Your task to perform on an android device: open app "Adobe Acrobat Reader: Edit PDF" (install if not already installed) and go to login screen Image 0: 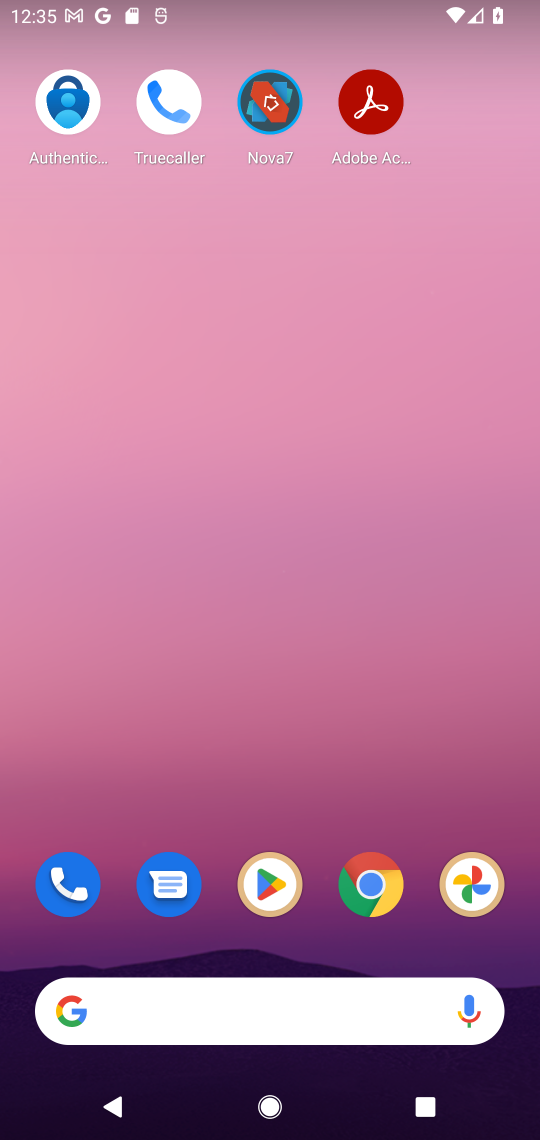
Step 0: drag from (169, 1005) to (348, 181)
Your task to perform on an android device: open app "Adobe Acrobat Reader: Edit PDF" (install if not already installed) and go to login screen Image 1: 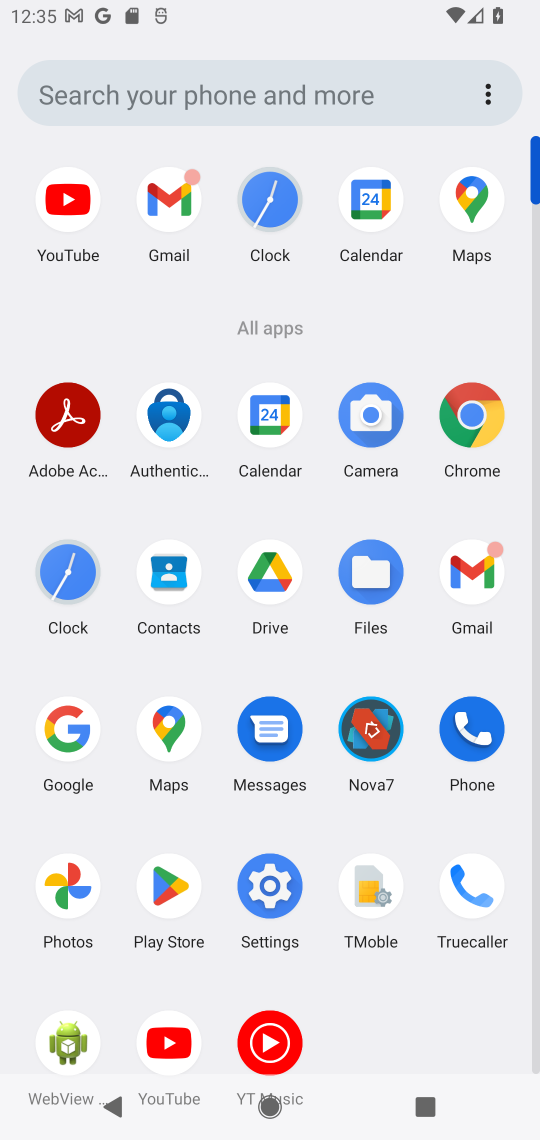
Step 1: click (172, 885)
Your task to perform on an android device: open app "Adobe Acrobat Reader: Edit PDF" (install if not already installed) and go to login screen Image 2: 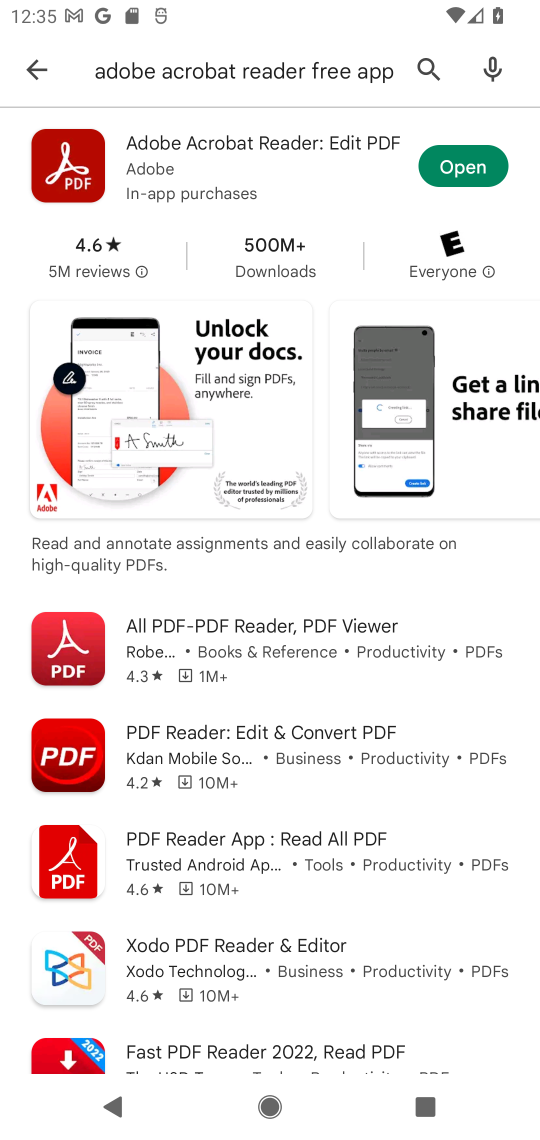
Step 2: press back button
Your task to perform on an android device: open app "Adobe Acrobat Reader: Edit PDF" (install if not already installed) and go to login screen Image 3: 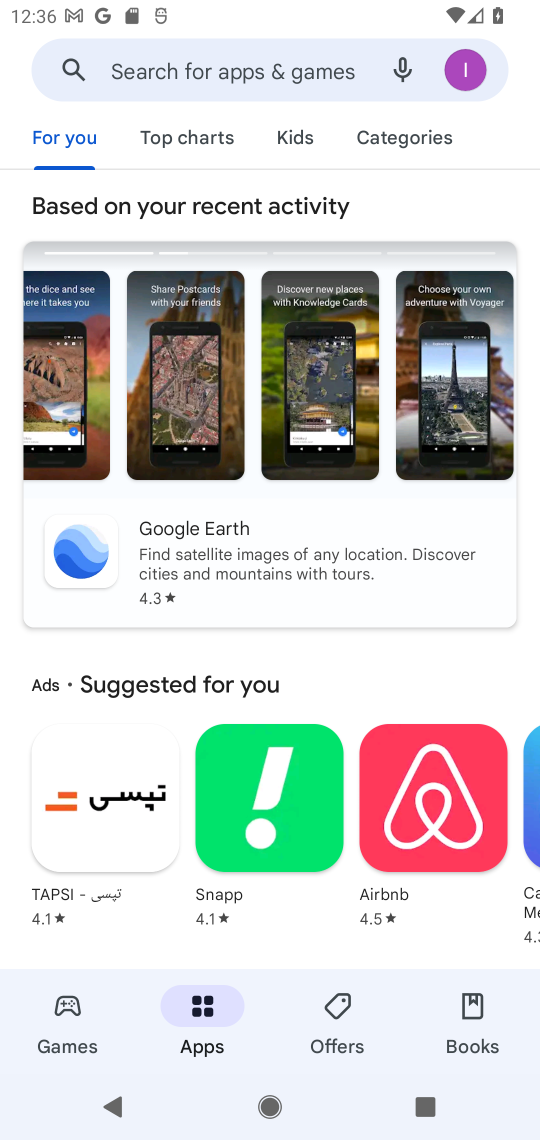
Step 3: click (283, 67)
Your task to perform on an android device: open app "Adobe Acrobat Reader: Edit PDF" (install if not already installed) and go to login screen Image 4: 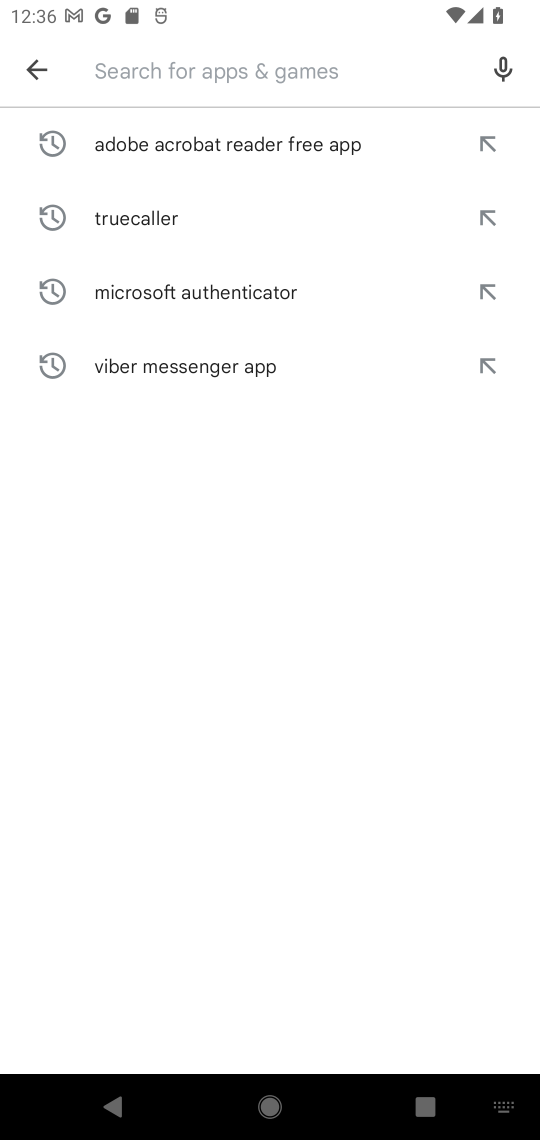
Step 4: type "Adobe Acrobat Reader: Edit PDF"
Your task to perform on an android device: open app "Adobe Acrobat Reader: Edit PDF" (install if not already installed) and go to login screen Image 5: 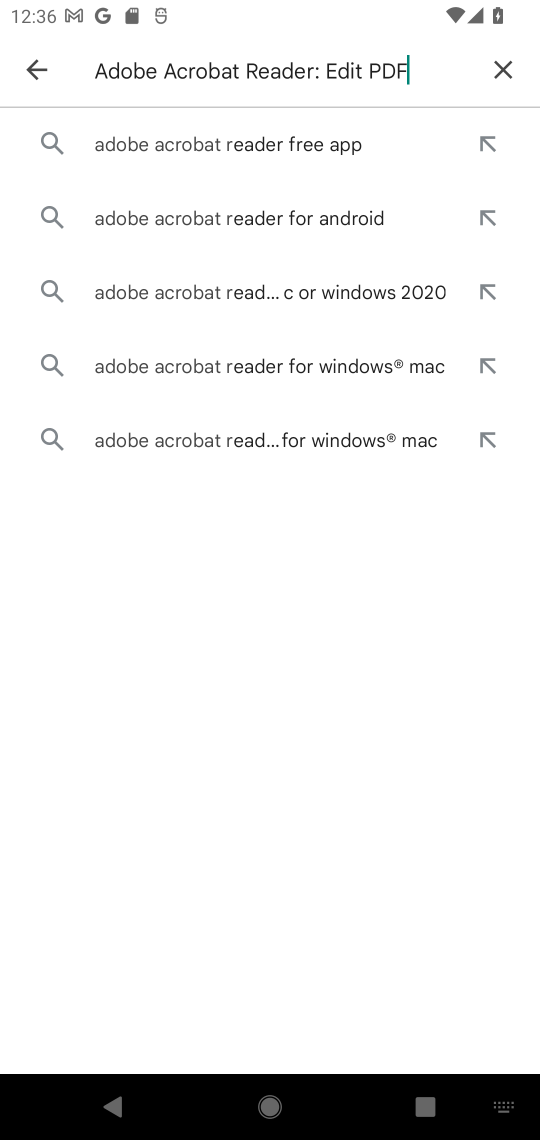
Step 5: type ""
Your task to perform on an android device: open app "Adobe Acrobat Reader: Edit PDF" (install if not already installed) and go to login screen Image 6: 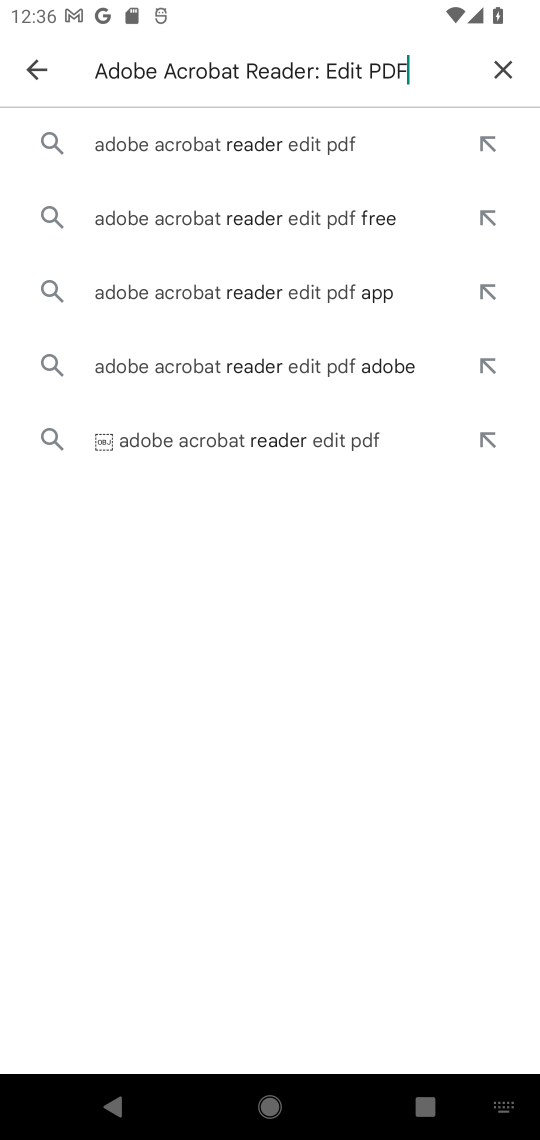
Step 6: click (224, 144)
Your task to perform on an android device: open app "Adobe Acrobat Reader: Edit PDF" (install if not already installed) and go to login screen Image 7: 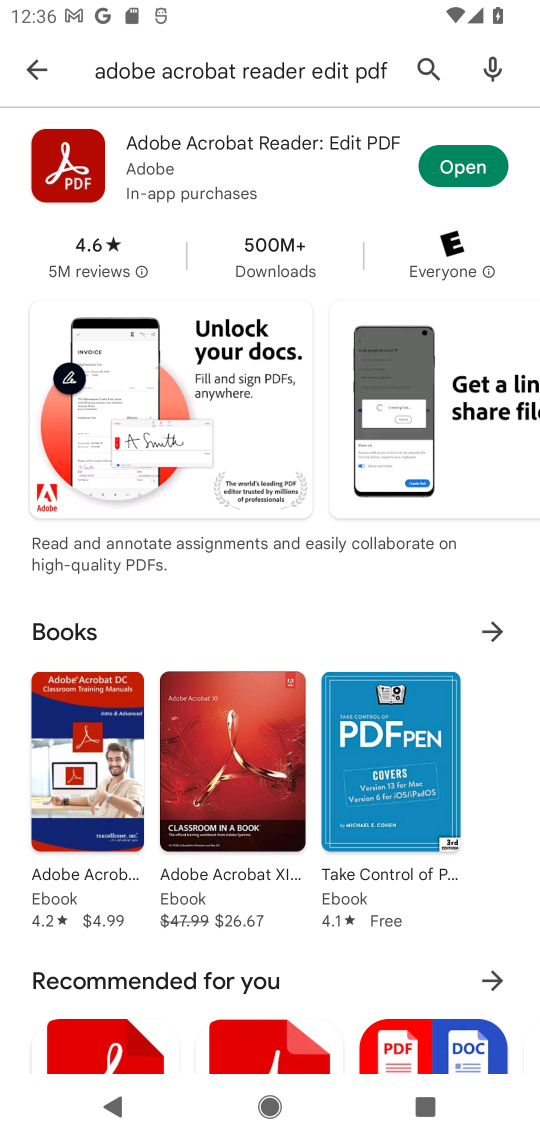
Step 7: click (456, 170)
Your task to perform on an android device: open app "Adobe Acrobat Reader: Edit PDF" (install if not already installed) and go to login screen Image 8: 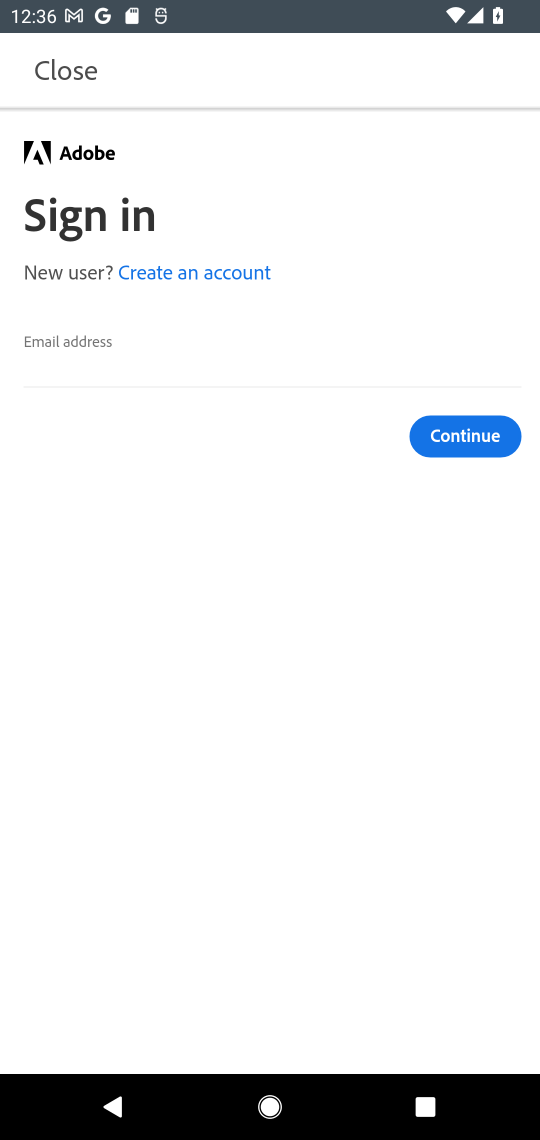
Step 8: task complete